Your task to perform on an android device: toggle show notifications on the lock screen Image 0: 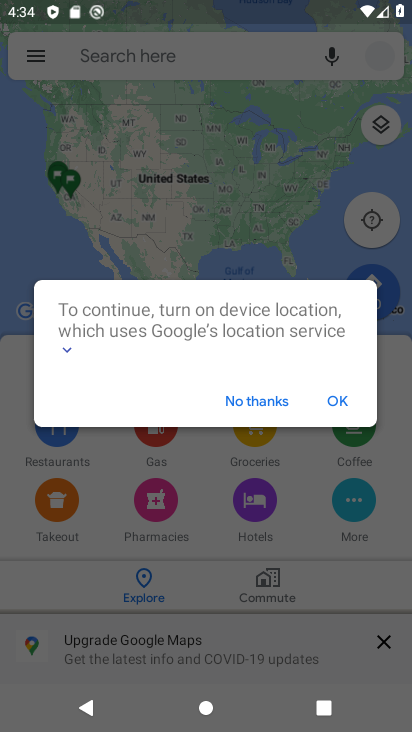
Step 0: press home button
Your task to perform on an android device: toggle show notifications on the lock screen Image 1: 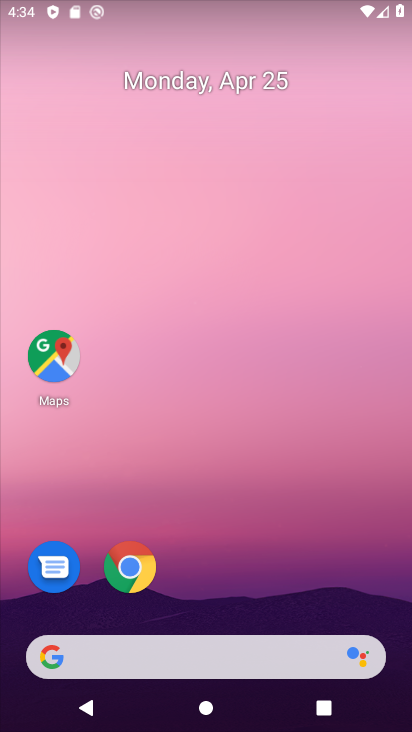
Step 1: drag from (229, 481) to (352, 33)
Your task to perform on an android device: toggle show notifications on the lock screen Image 2: 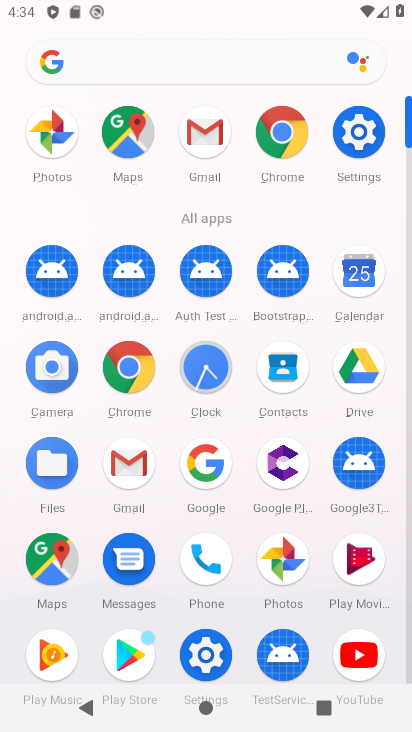
Step 2: click (372, 125)
Your task to perform on an android device: toggle show notifications on the lock screen Image 3: 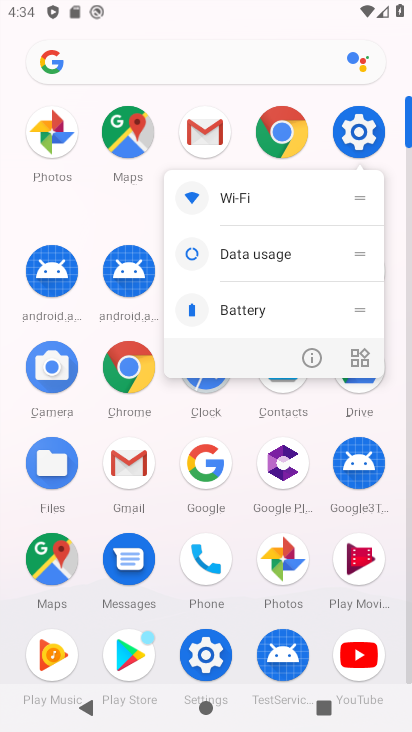
Step 3: click (369, 132)
Your task to perform on an android device: toggle show notifications on the lock screen Image 4: 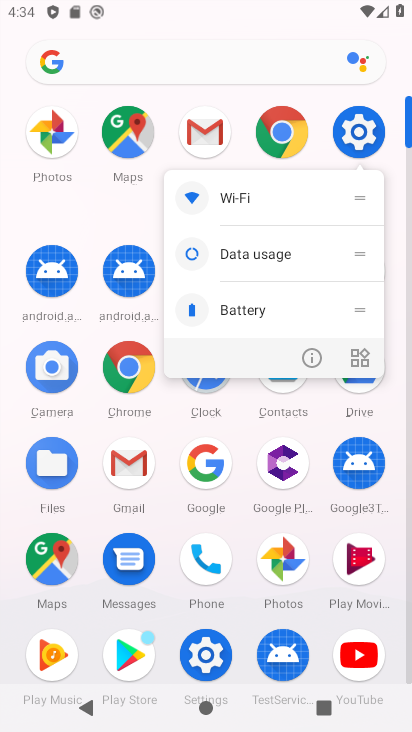
Step 4: click (360, 137)
Your task to perform on an android device: toggle show notifications on the lock screen Image 5: 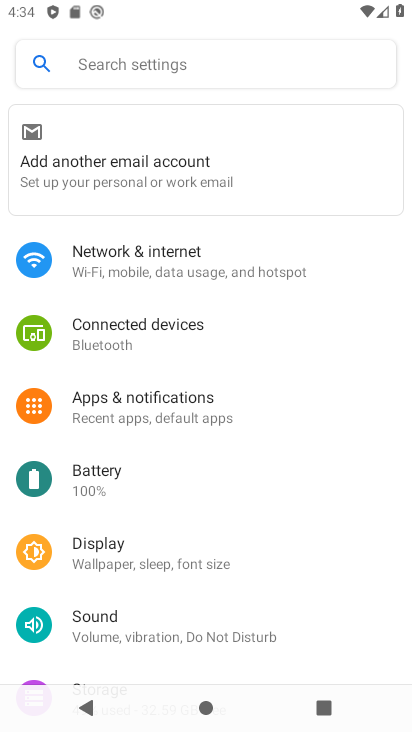
Step 5: click (164, 411)
Your task to perform on an android device: toggle show notifications on the lock screen Image 6: 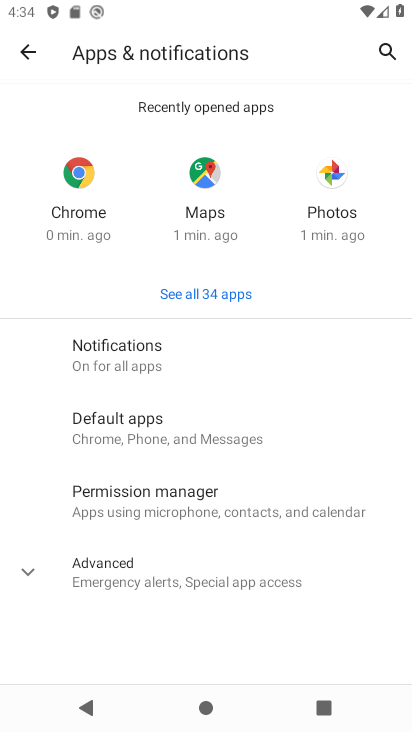
Step 6: click (110, 354)
Your task to perform on an android device: toggle show notifications on the lock screen Image 7: 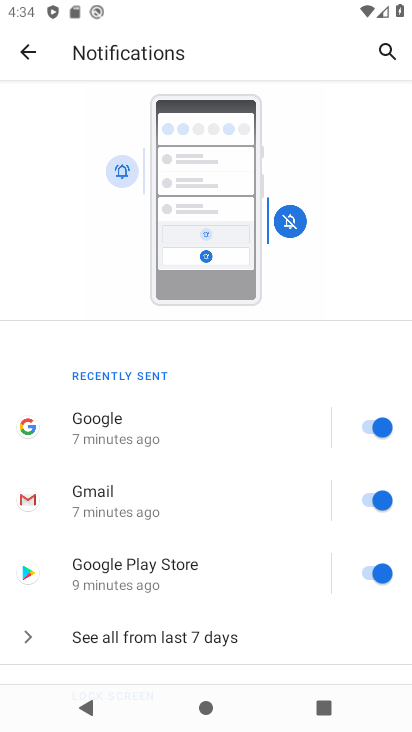
Step 7: drag from (183, 570) to (258, 164)
Your task to perform on an android device: toggle show notifications on the lock screen Image 8: 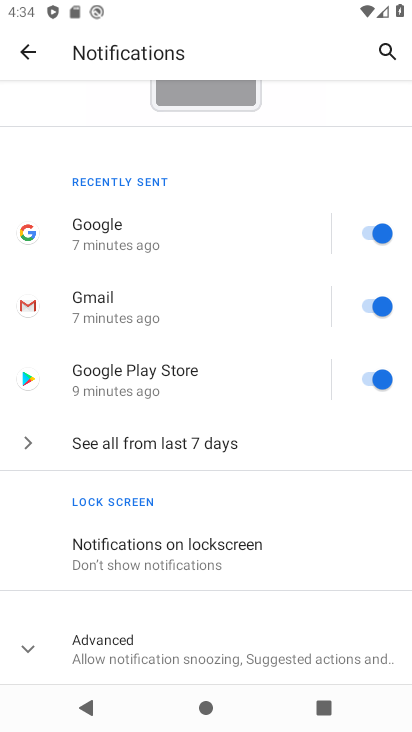
Step 8: click (190, 542)
Your task to perform on an android device: toggle show notifications on the lock screen Image 9: 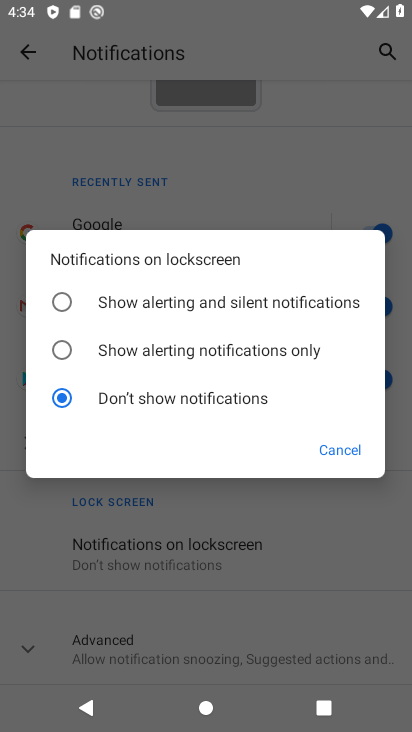
Step 9: click (63, 300)
Your task to perform on an android device: toggle show notifications on the lock screen Image 10: 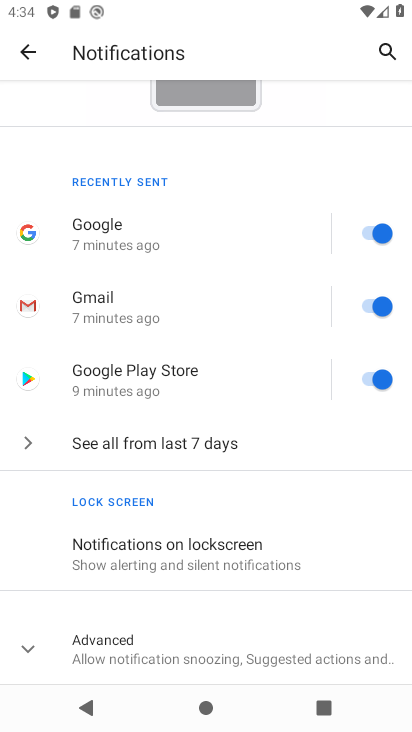
Step 10: task complete